Your task to perform on an android device: turn on the 24-hour format for clock Image 0: 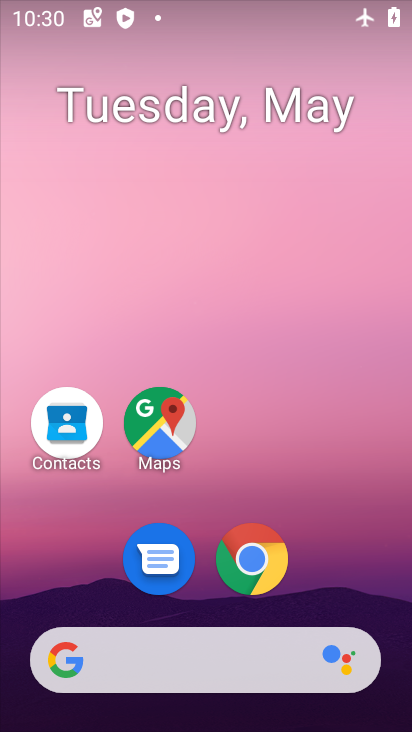
Step 0: drag from (369, 569) to (323, 143)
Your task to perform on an android device: turn on the 24-hour format for clock Image 1: 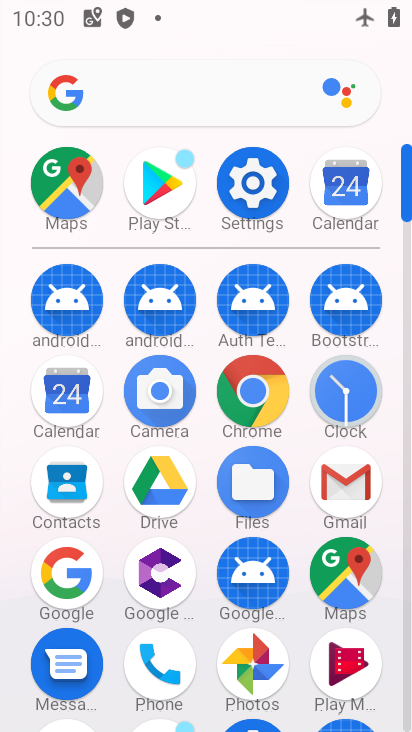
Step 1: click (258, 200)
Your task to perform on an android device: turn on the 24-hour format for clock Image 2: 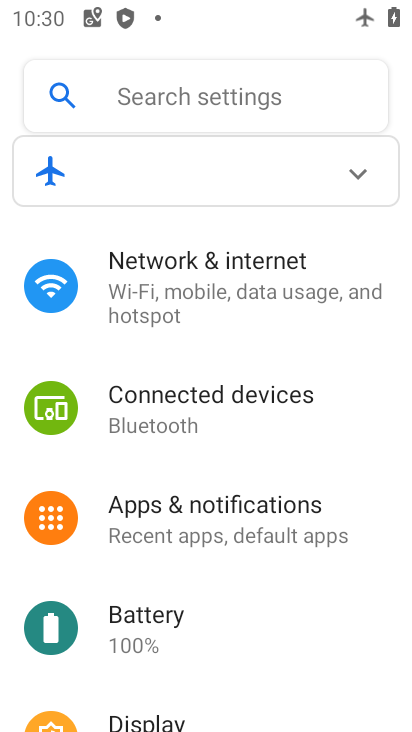
Step 2: press home button
Your task to perform on an android device: turn on the 24-hour format for clock Image 3: 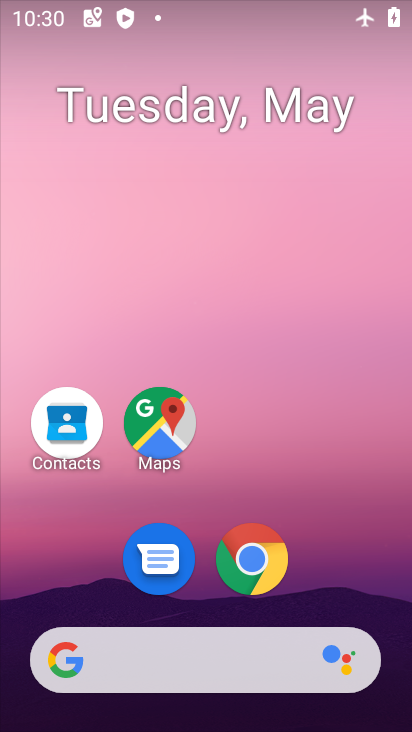
Step 3: drag from (370, 566) to (356, 274)
Your task to perform on an android device: turn on the 24-hour format for clock Image 4: 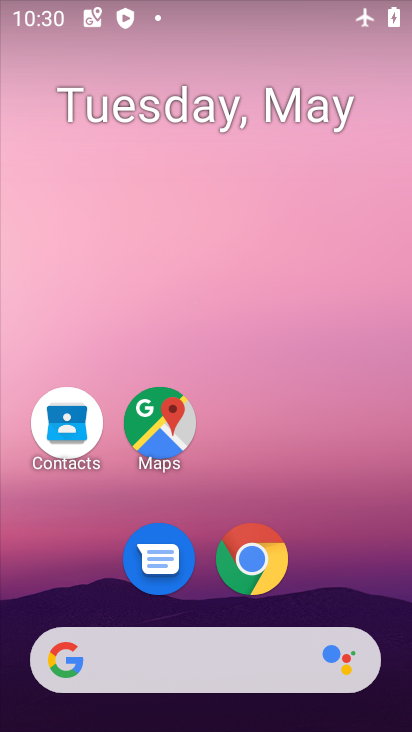
Step 4: drag from (339, 582) to (334, 47)
Your task to perform on an android device: turn on the 24-hour format for clock Image 5: 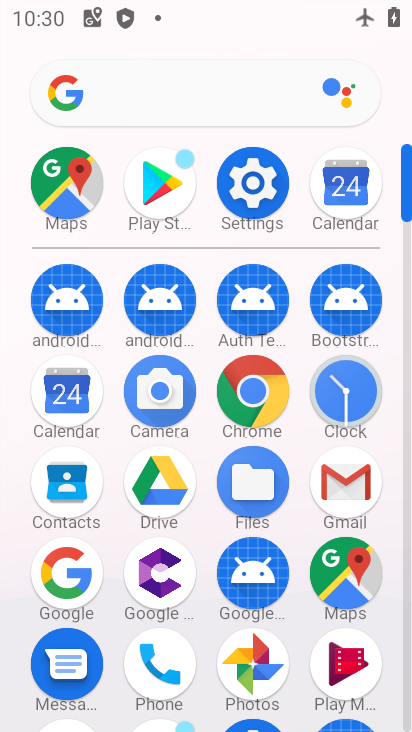
Step 5: click (238, 205)
Your task to perform on an android device: turn on the 24-hour format for clock Image 6: 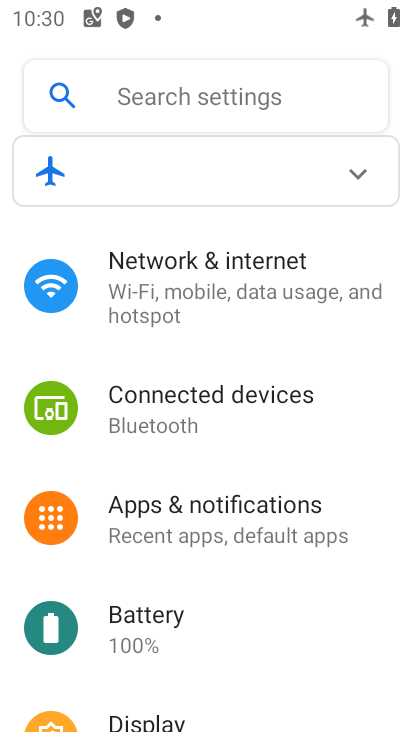
Step 6: drag from (212, 559) to (234, 348)
Your task to perform on an android device: turn on the 24-hour format for clock Image 7: 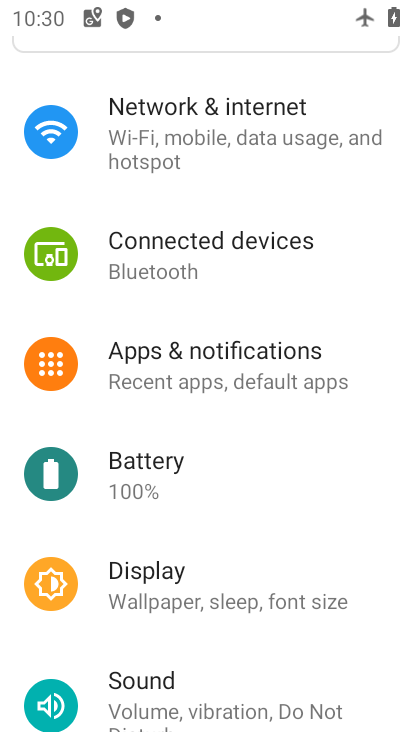
Step 7: press home button
Your task to perform on an android device: turn on the 24-hour format for clock Image 8: 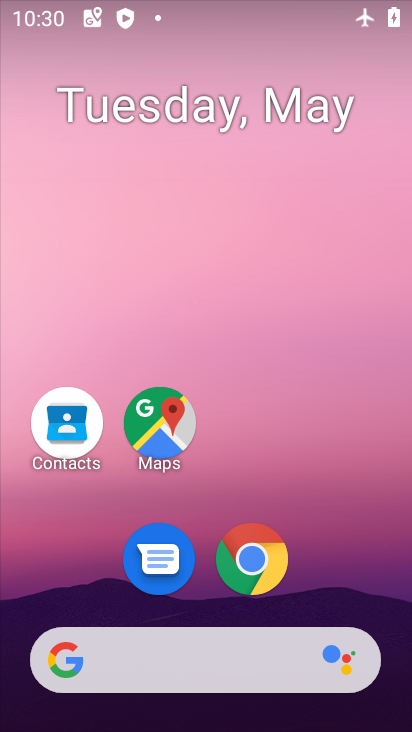
Step 8: drag from (356, 600) to (372, 44)
Your task to perform on an android device: turn on the 24-hour format for clock Image 9: 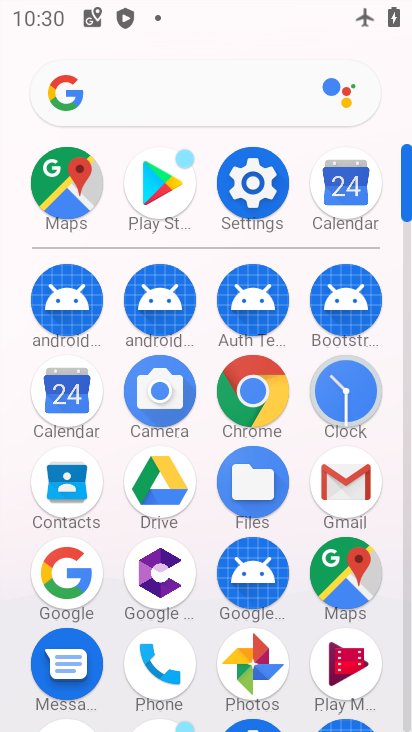
Step 9: click (348, 388)
Your task to perform on an android device: turn on the 24-hour format for clock Image 10: 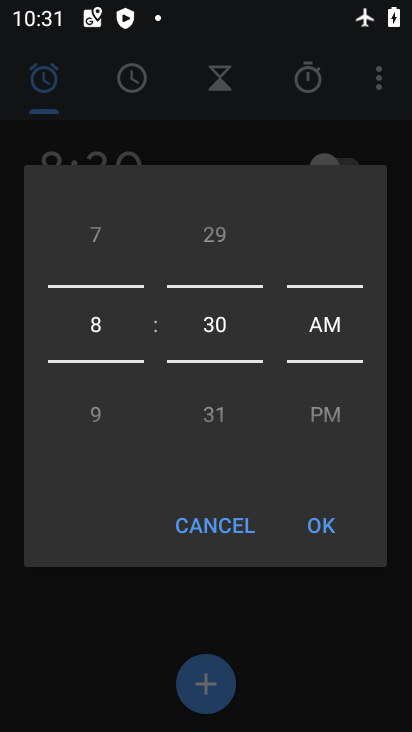
Step 10: click (306, 535)
Your task to perform on an android device: turn on the 24-hour format for clock Image 11: 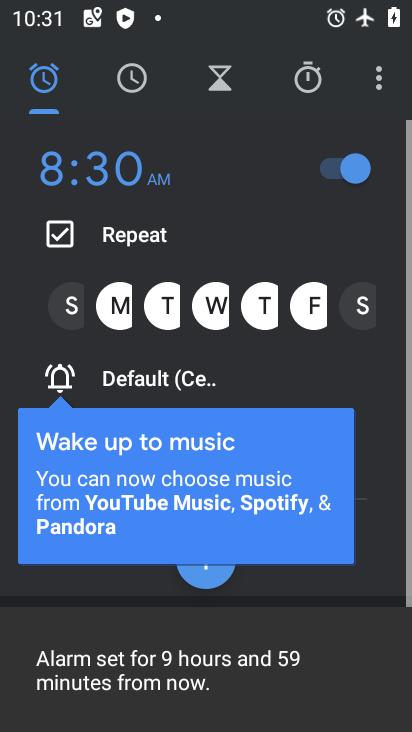
Step 11: click (380, 98)
Your task to perform on an android device: turn on the 24-hour format for clock Image 12: 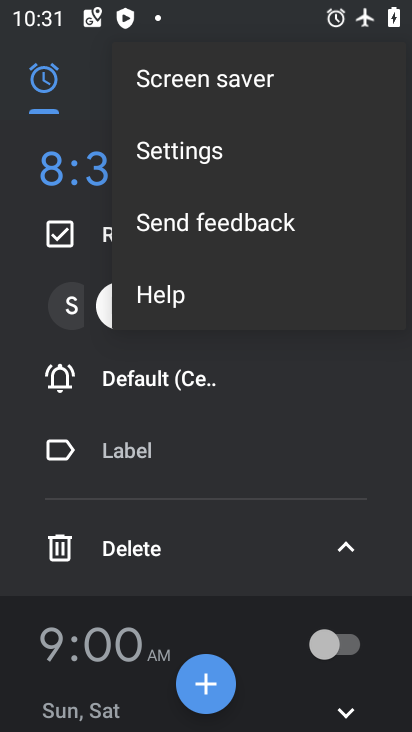
Step 12: click (269, 142)
Your task to perform on an android device: turn on the 24-hour format for clock Image 13: 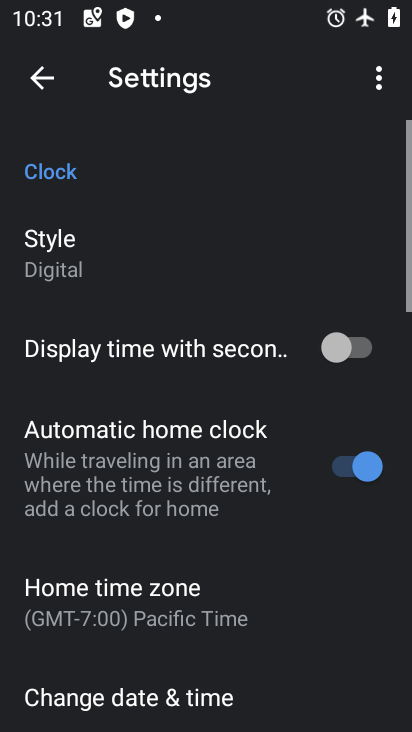
Step 13: drag from (162, 677) to (167, 357)
Your task to perform on an android device: turn on the 24-hour format for clock Image 14: 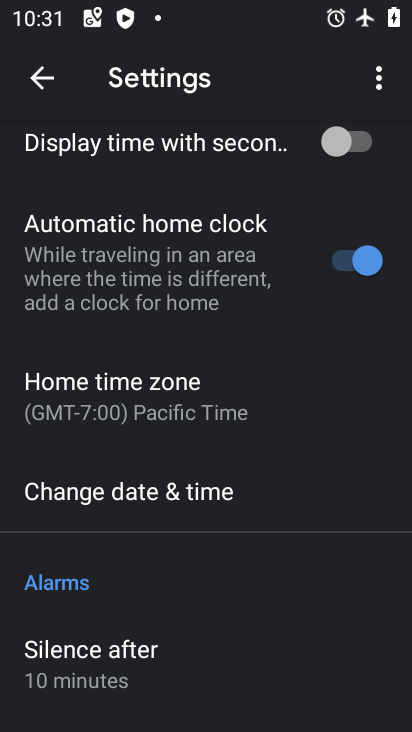
Step 14: click (218, 485)
Your task to perform on an android device: turn on the 24-hour format for clock Image 15: 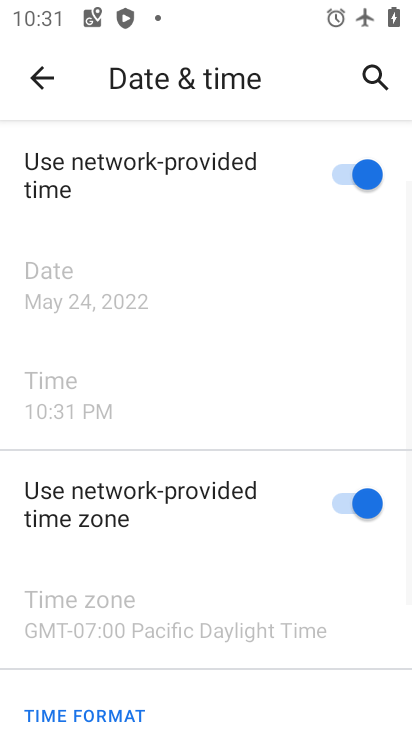
Step 15: drag from (235, 570) to (245, 240)
Your task to perform on an android device: turn on the 24-hour format for clock Image 16: 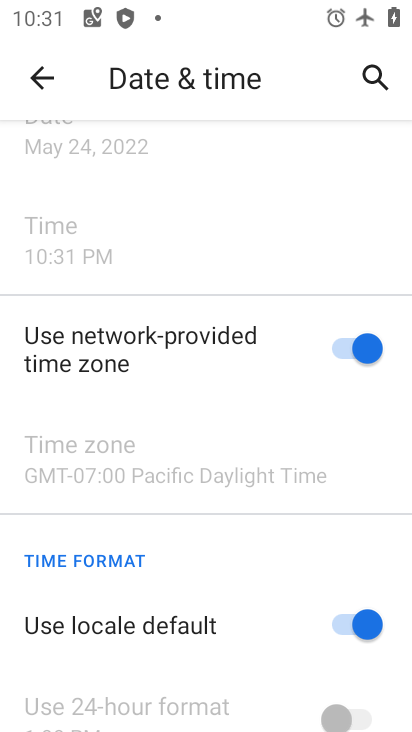
Step 16: click (338, 612)
Your task to perform on an android device: turn on the 24-hour format for clock Image 17: 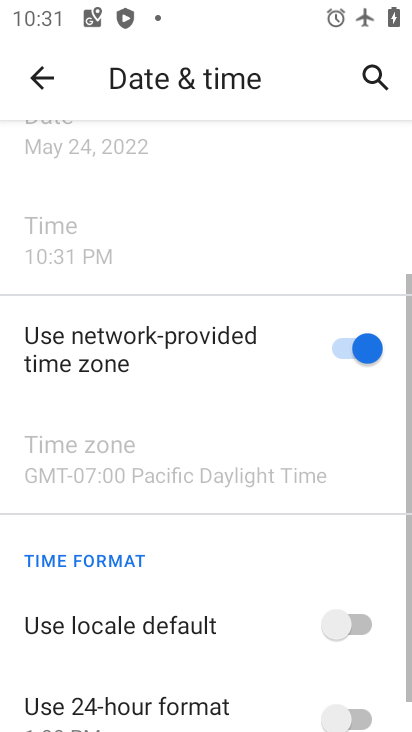
Step 17: click (330, 688)
Your task to perform on an android device: turn on the 24-hour format for clock Image 18: 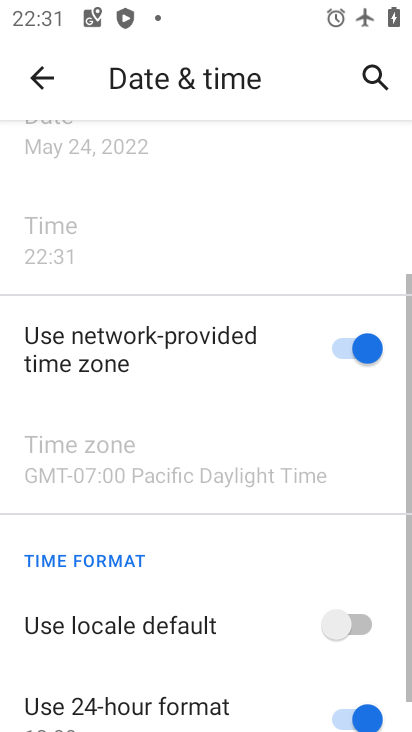
Step 18: task complete